Your task to perform on an android device: Go to display settings Image 0: 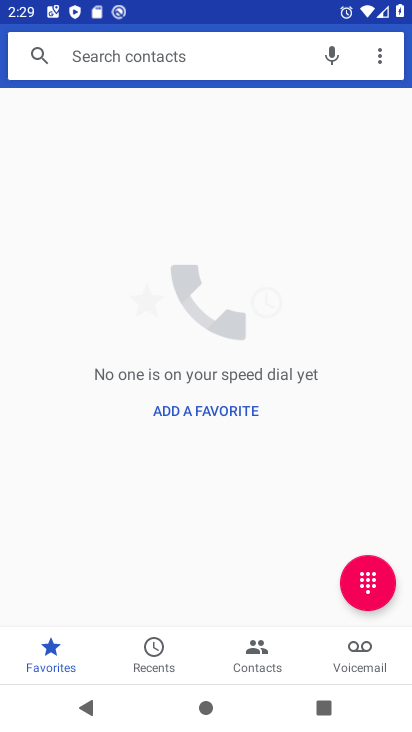
Step 0: press home button
Your task to perform on an android device: Go to display settings Image 1: 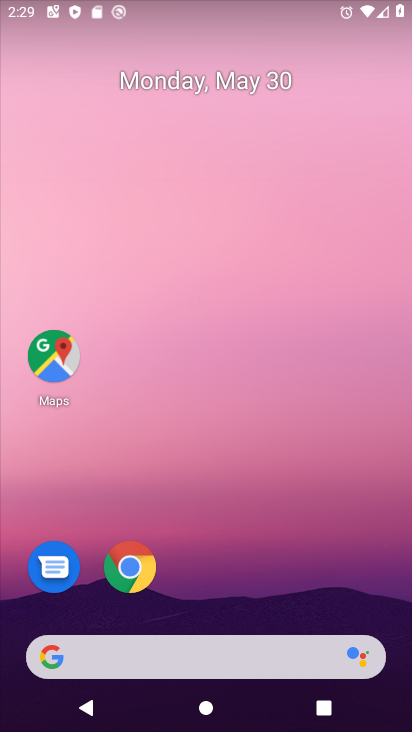
Step 1: drag from (193, 603) to (305, 4)
Your task to perform on an android device: Go to display settings Image 2: 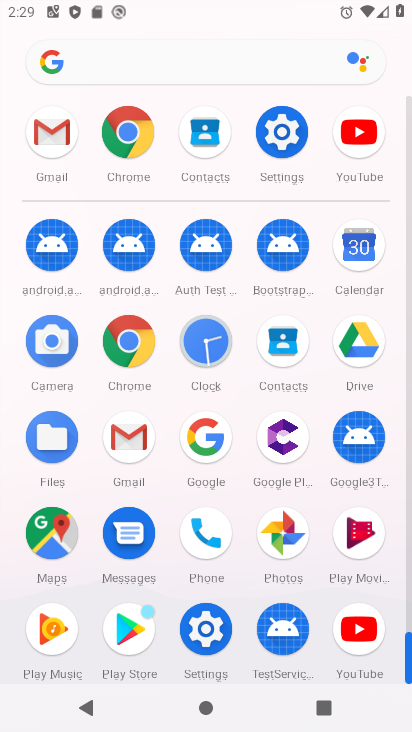
Step 2: click (263, 140)
Your task to perform on an android device: Go to display settings Image 3: 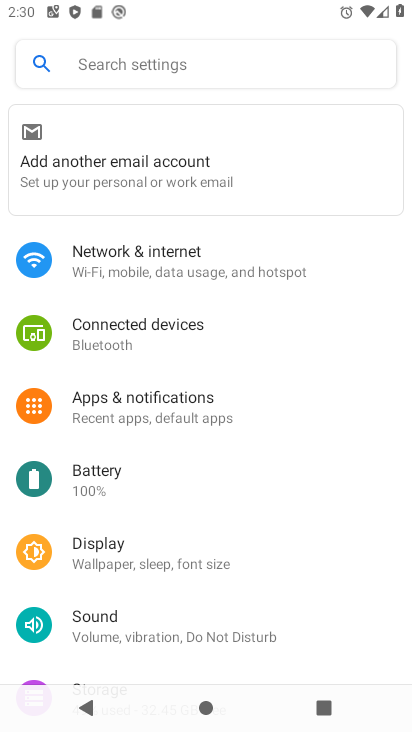
Step 3: click (151, 557)
Your task to perform on an android device: Go to display settings Image 4: 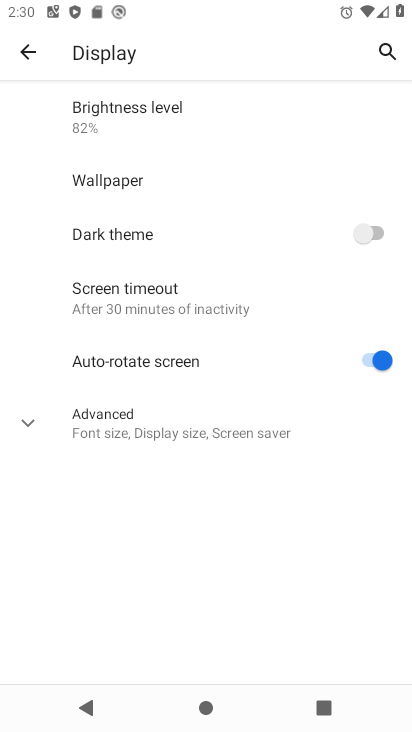
Step 4: task complete